Your task to perform on an android device: check data usage Image 0: 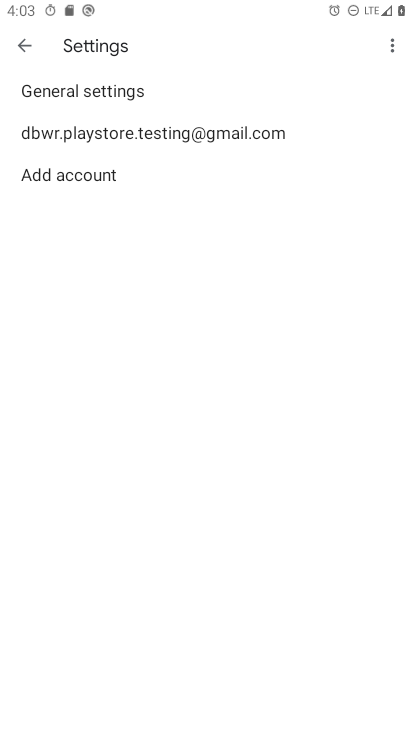
Step 0: press home button
Your task to perform on an android device: check data usage Image 1: 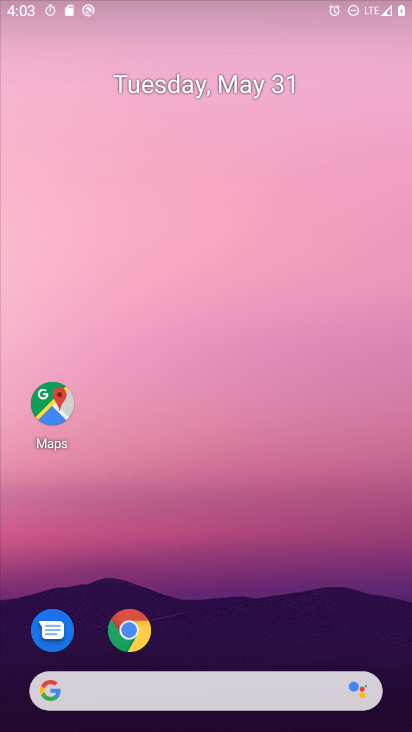
Step 1: drag from (281, 685) to (293, 122)
Your task to perform on an android device: check data usage Image 2: 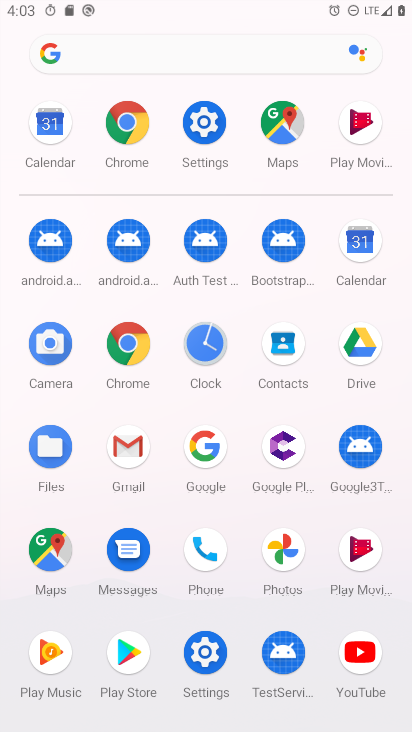
Step 2: click (215, 125)
Your task to perform on an android device: check data usage Image 3: 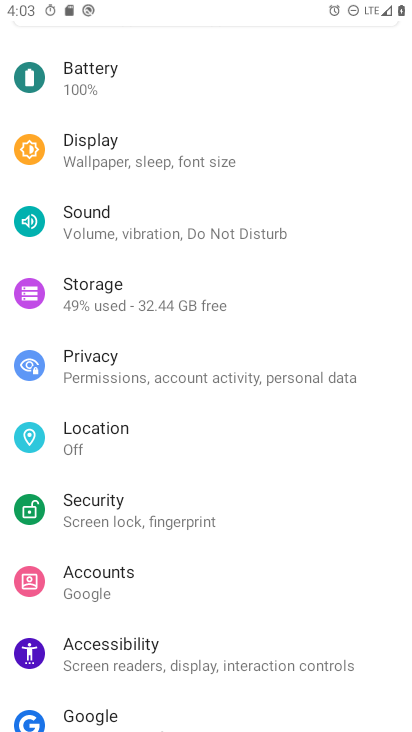
Step 3: drag from (188, 172) to (149, 729)
Your task to perform on an android device: check data usage Image 4: 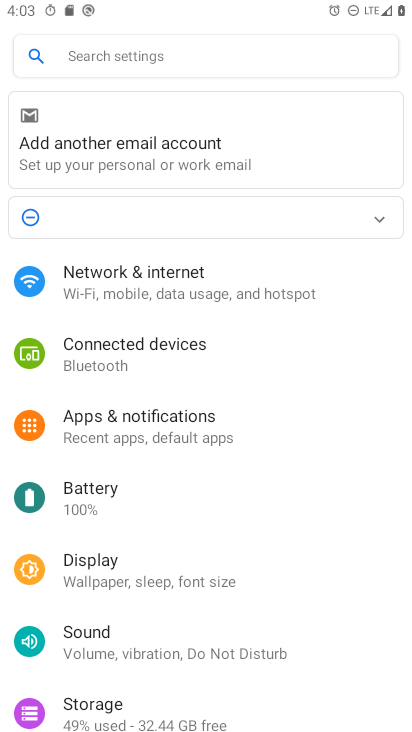
Step 4: click (187, 278)
Your task to perform on an android device: check data usage Image 5: 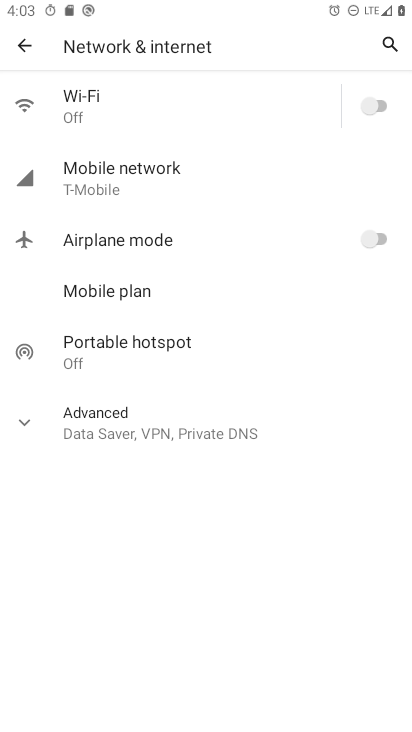
Step 5: click (140, 188)
Your task to perform on an android device: check data usage Image 6: 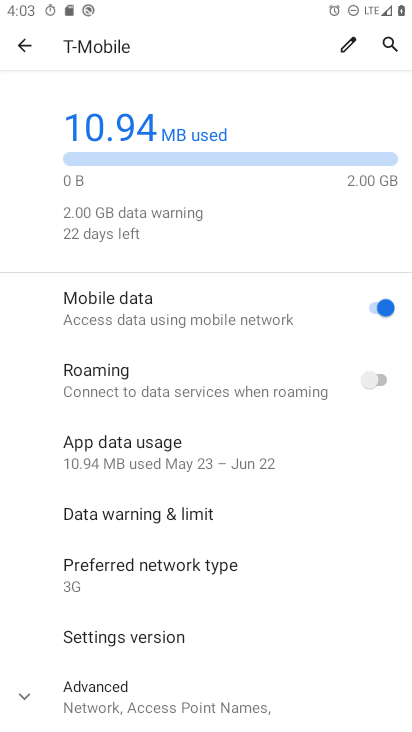
Step 6: click (183, 462)
Your task to perform on an android device: check data usage Image 7: 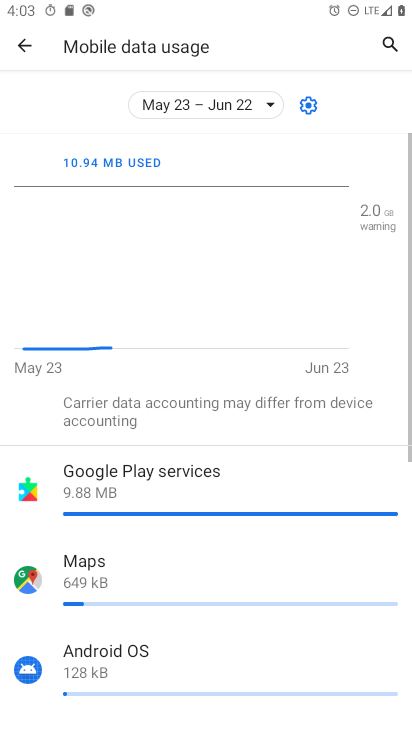
Step 7: task complete